Your task to perform on an android device: Open calendar and show me the fourth week of next month Image 0: 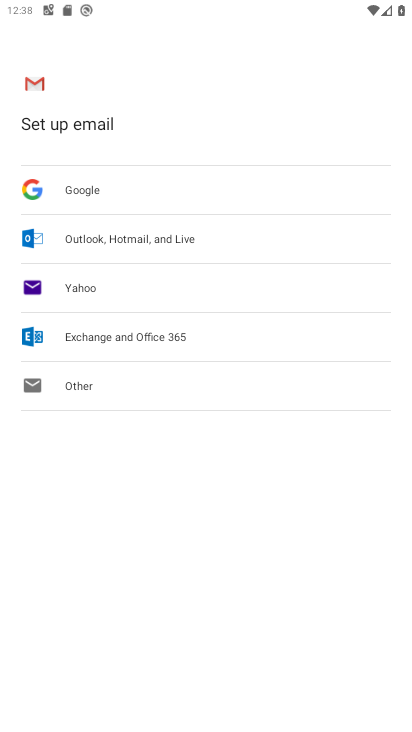
Step 0: press home button
Your task to perform on an android device: Open calendar and show me the fourth week of next month Image 1: 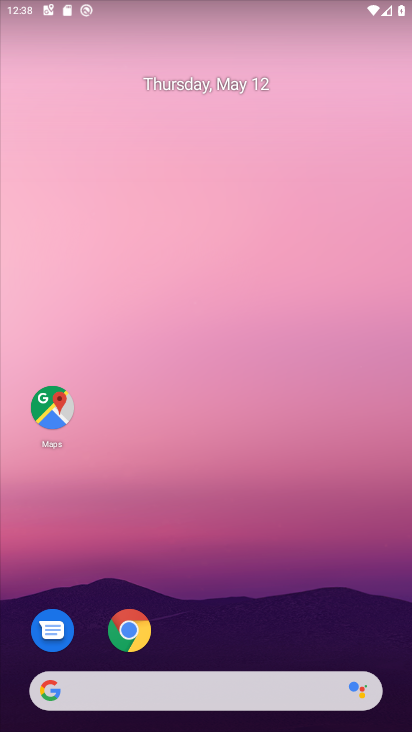
Step 1: drag from (267, 575) to (312, 93)
Your task to perform on an android device: Open calendar and show me the fourth week of next month Image 2: 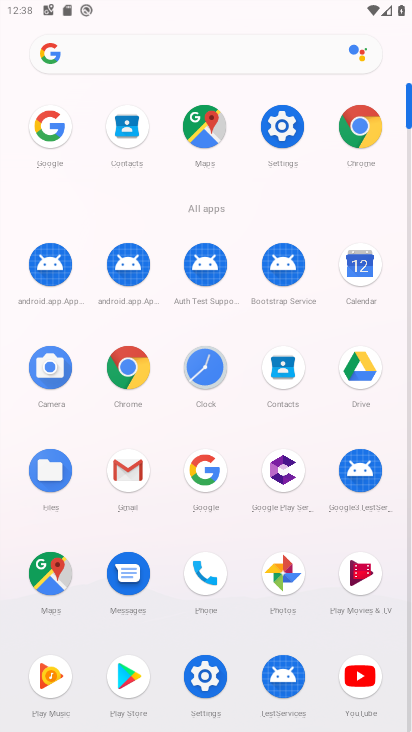
Step 2: click (361, 263)
Your task to perform on an android device: Open calendar and show me the fourth week of next month Image 3: 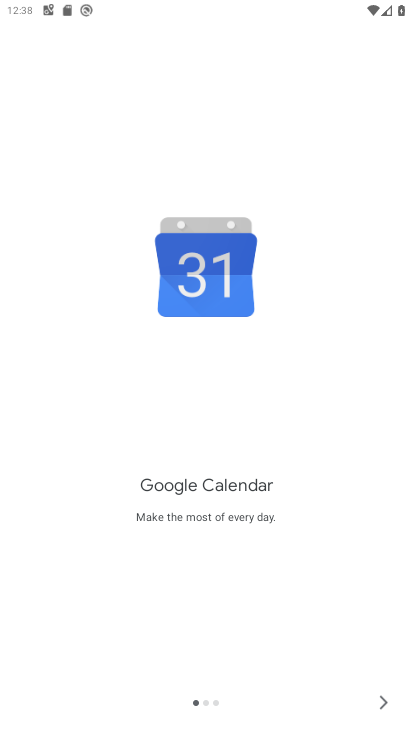
Step 3: click (388, 700)
Your task to perform on an android device: Open calendar and show me the fourth week of next month Image 4: 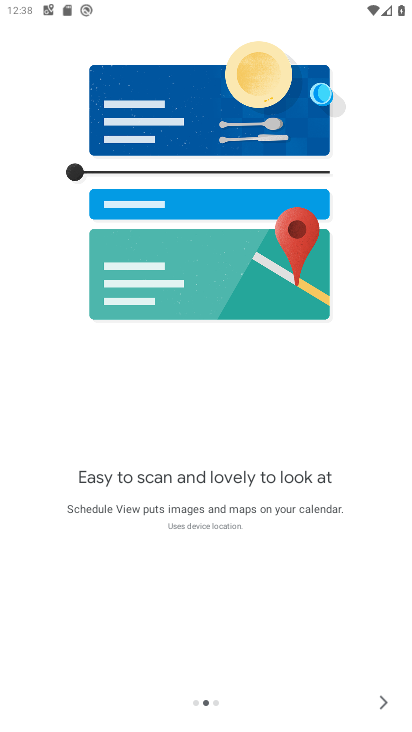
Step 4: click (388, 700)
Your task to perform on an android device: Open calendar and show me the fourth week of next month Image 5: 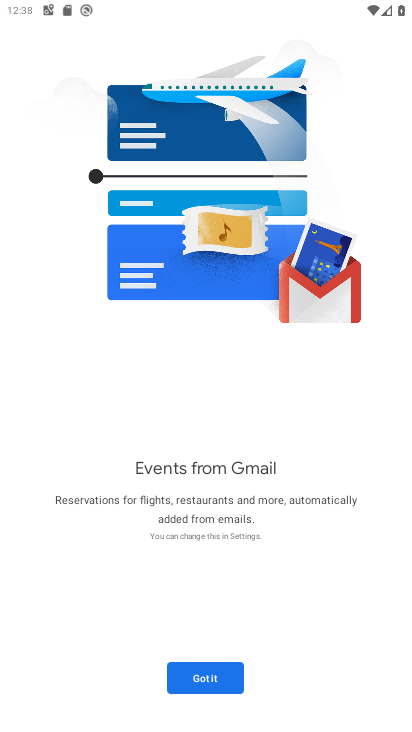
Step 5: click (220, 669)
Your task to perform on an android device: Open calendar and show me the fourth week of next month Image 6: 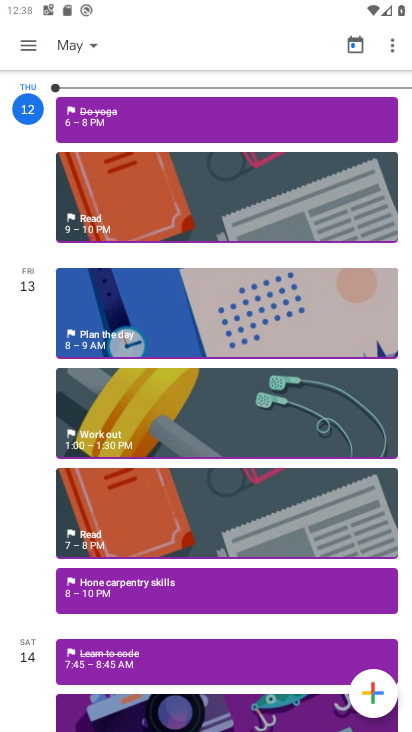
Step 6: click (87, 35)
Your task to perform on an android device: Open calendar and show me the fourth week of next month Image 7: 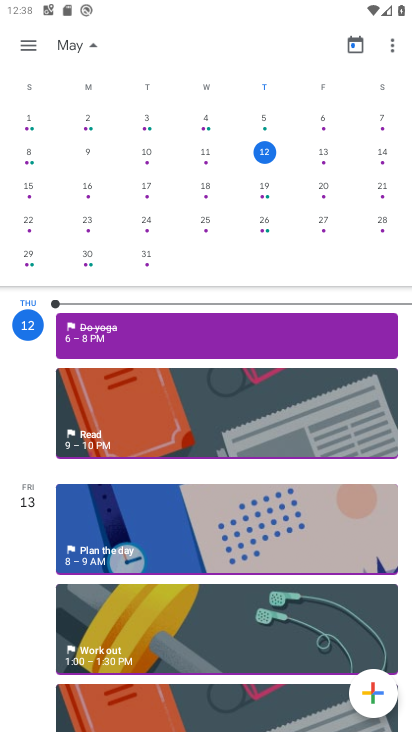
Step 7: drag from (300, 163) to (49, 139)
Your task to perform on an android device: Open calendar and show me the fourth week of next month Image 8: 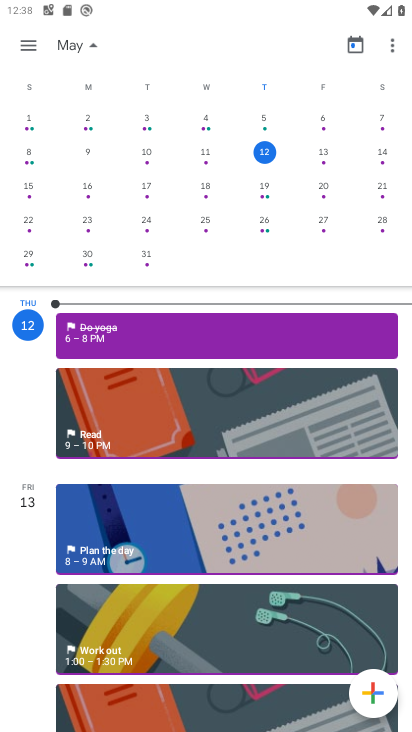
Step 8: drag from (372, 169) to (16, 141)
Your task to perform on an android device: Open calendar and show me the fourth week of next month Image 9: 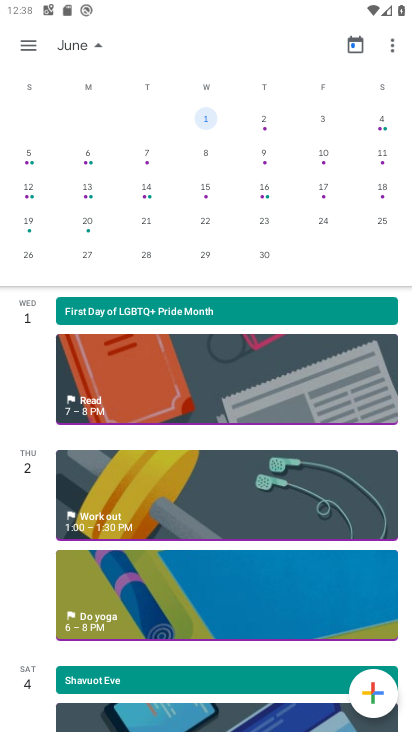
Step 9: click (87, 250)
Your task to perform on an android device: Open calendar and show me the fourth week of next month Image 10: 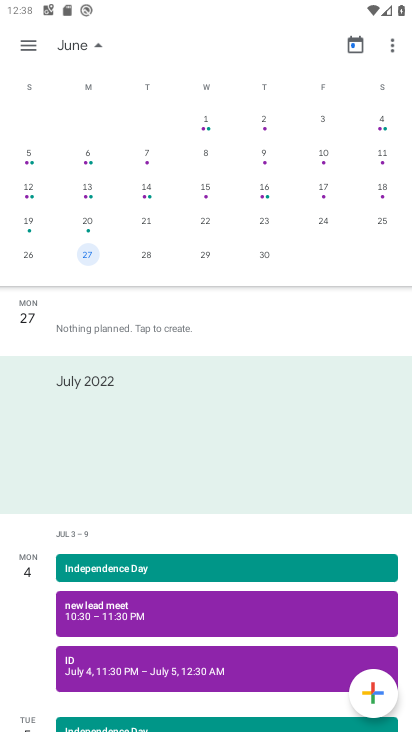
Step 10: task complete